Your task to perform on an android device: change notifications settings Image 0: 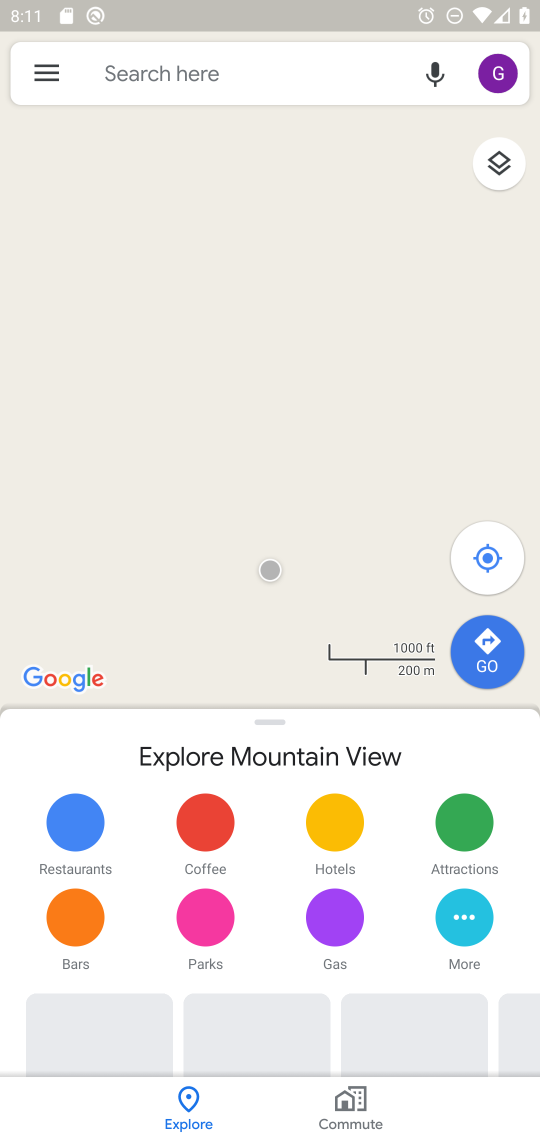
Step 0: press back button
Your task to perform on an android device: change notifications settings Image 1: 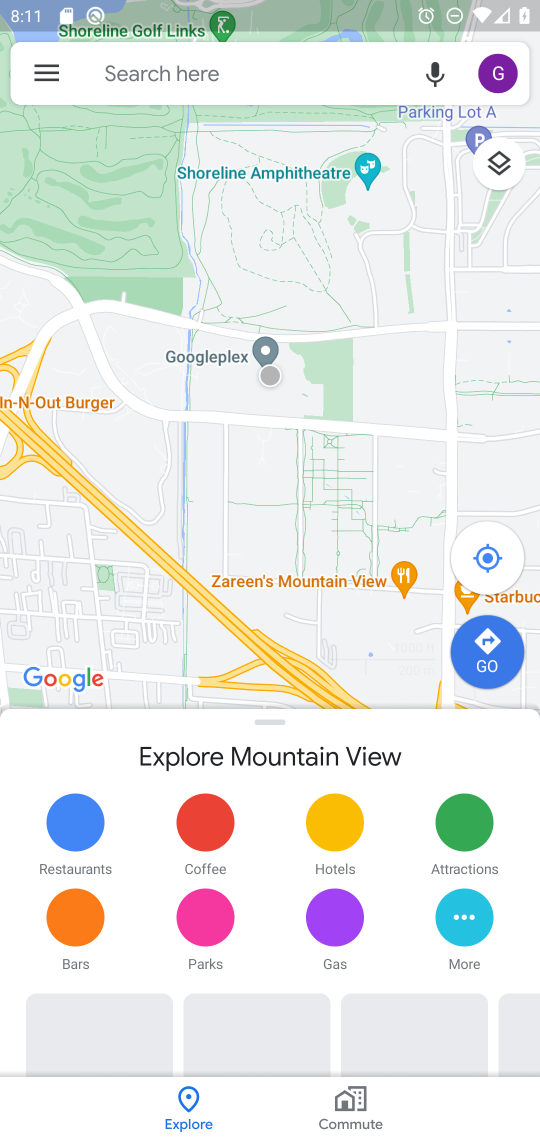
Step 1: press home button
Your task to perform on an android device: change notifications settings Image 2: 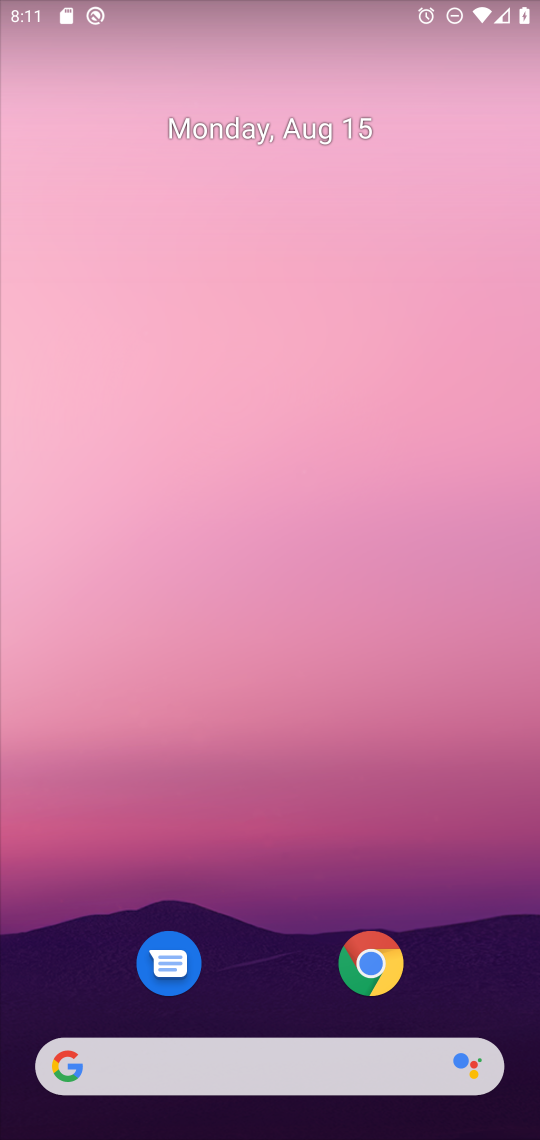
Step 2: drag from (253, 983) to (192, 2)
Your task to perform on an android device: change notifications settings Image 3: 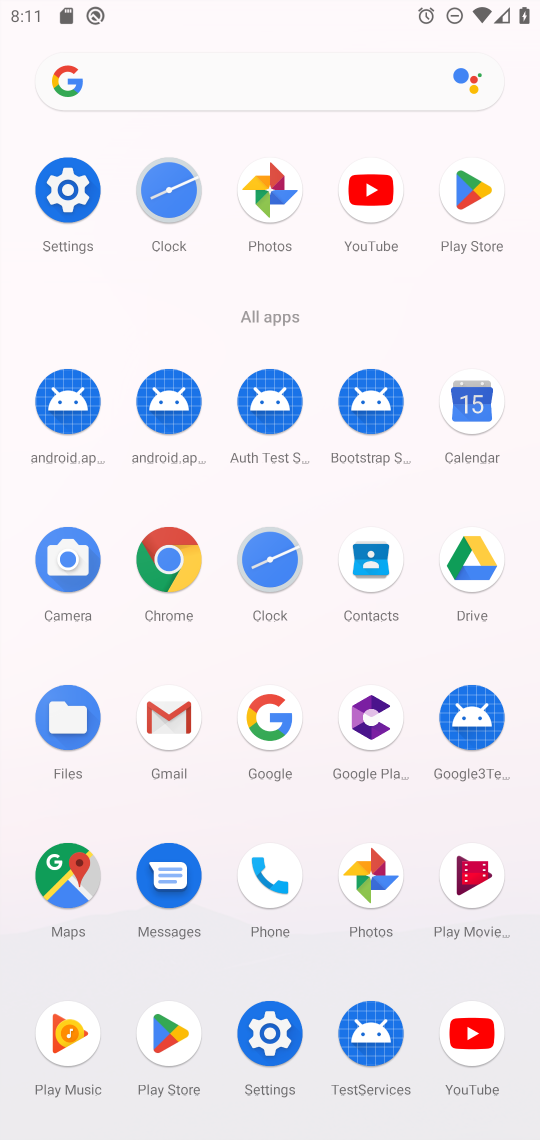
Step 3: click (72, 201)
Your task to perform on an android device: change notifications settings Image 4: 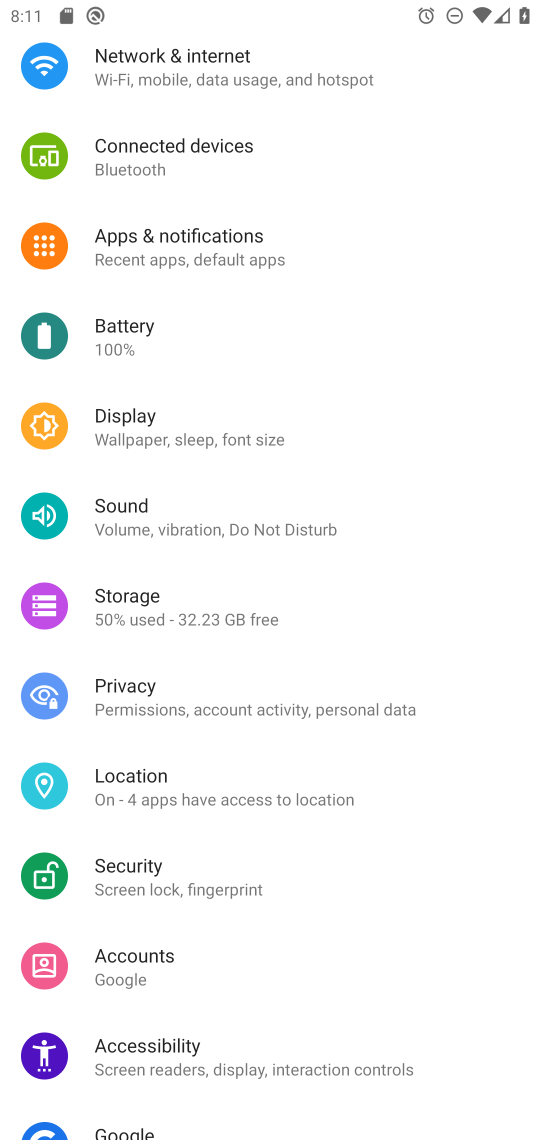
Step 4: click (305, 241)
Your task to perform on an android device: change notifications settings Image 5: 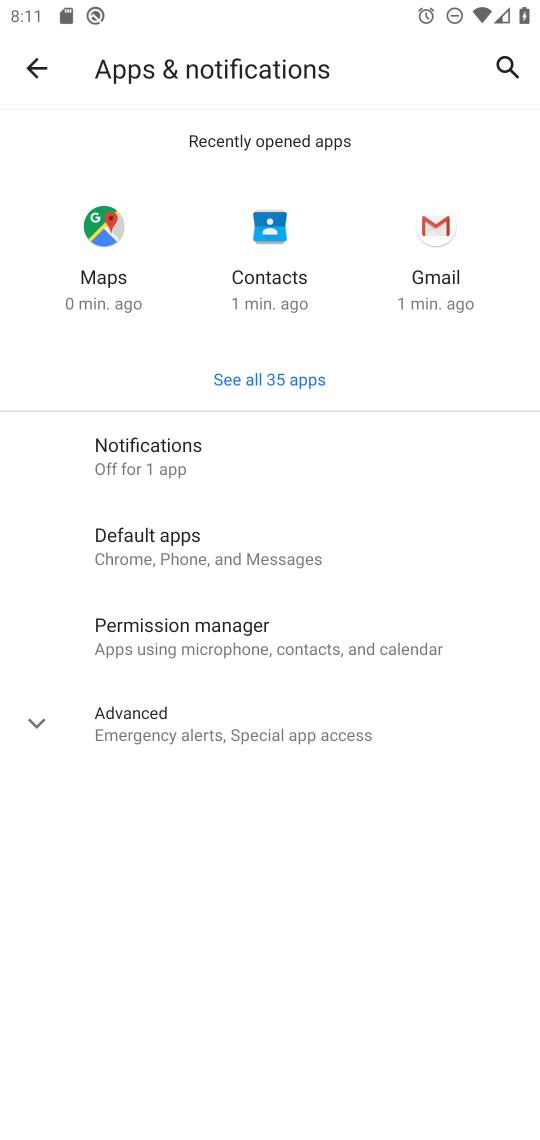
Step 5: click (253, 452)
Your task to perform on an android device: change notifications settings Image 6: 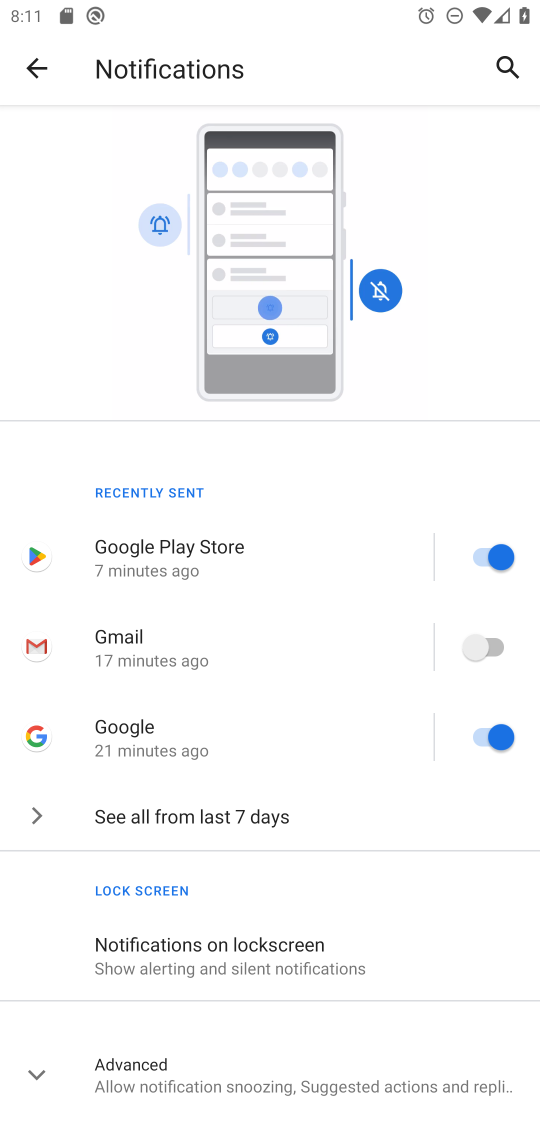
Step 6: click (234, 1072)
Your task to perform on an android device: change notifications settings Image 7: 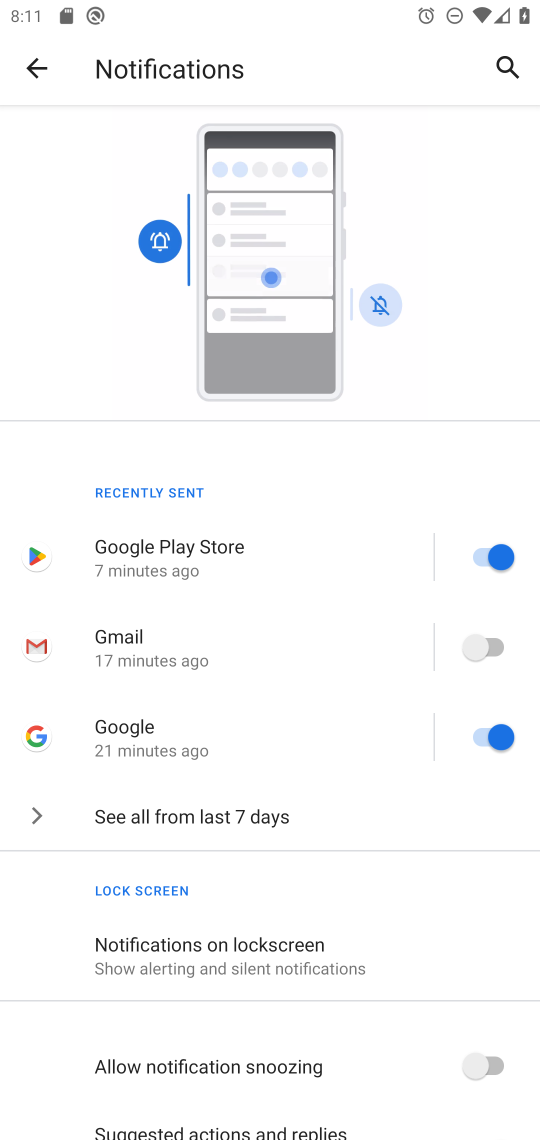
Step 7: click (503, 1061)
Your task to perform on an android device: change notifications settings Image 8: 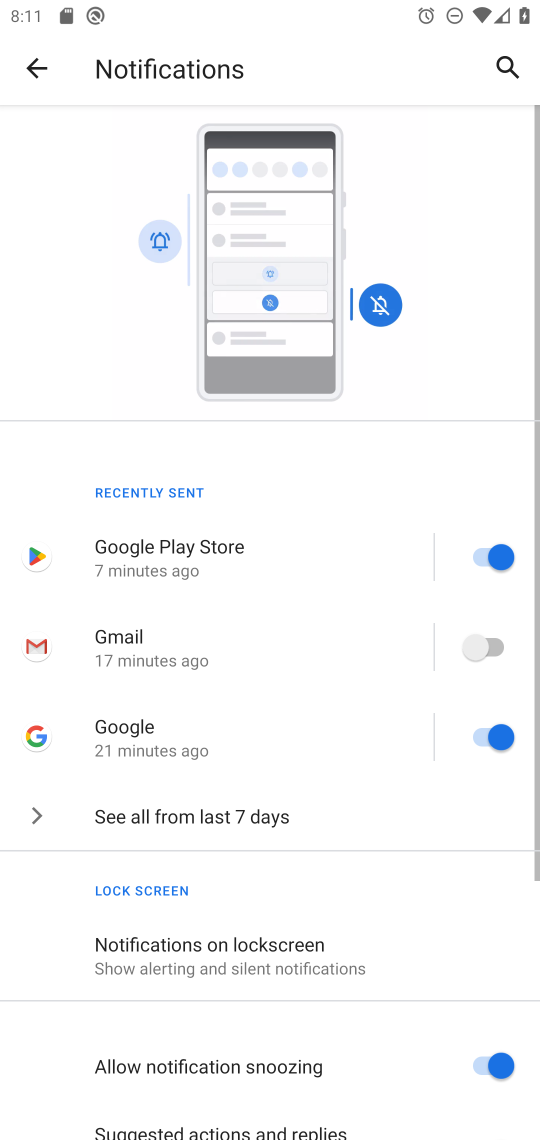
Step 8: drag from (224, 1103) to (267, 445)
Your task to perform on an android device: change notifications settings Image 9: 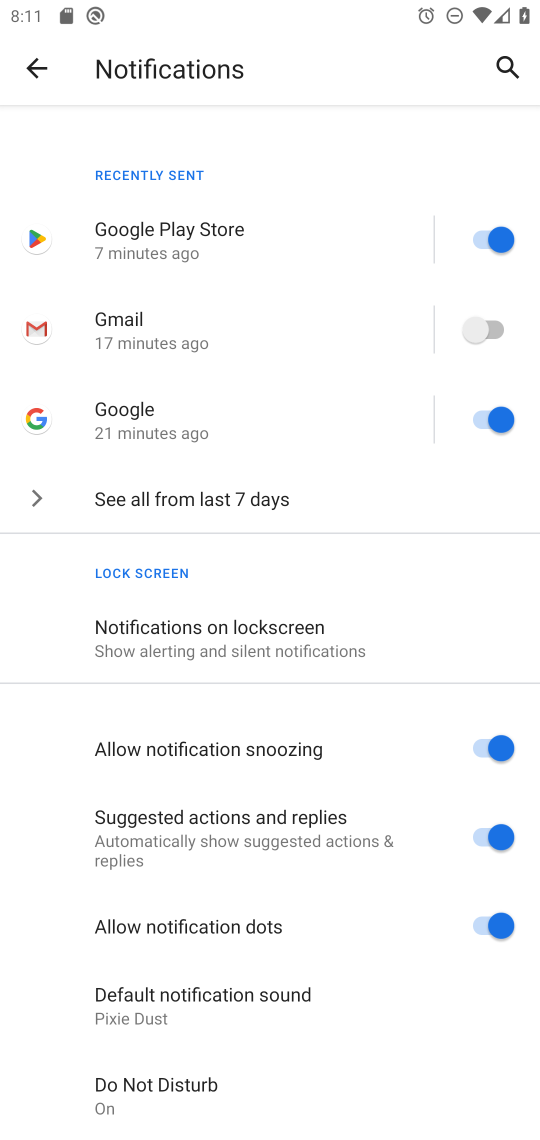
Step 9: click (484, 842)
Your task to perform on an android device: change notifications settings Image 10: 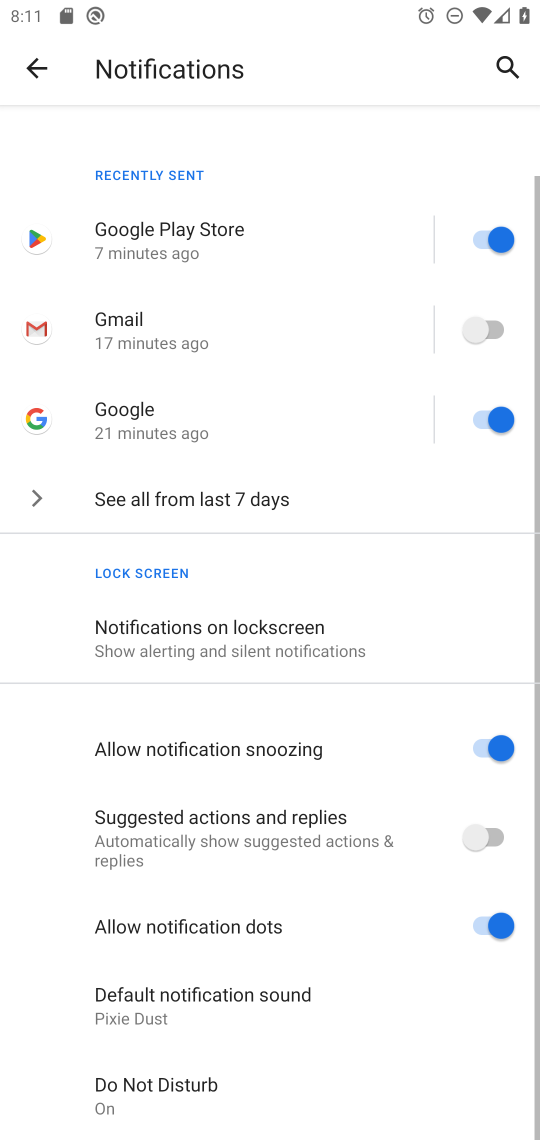
Step 10: click (506, 919)
Your task to perform on an android device: change notifications settings Image 11: 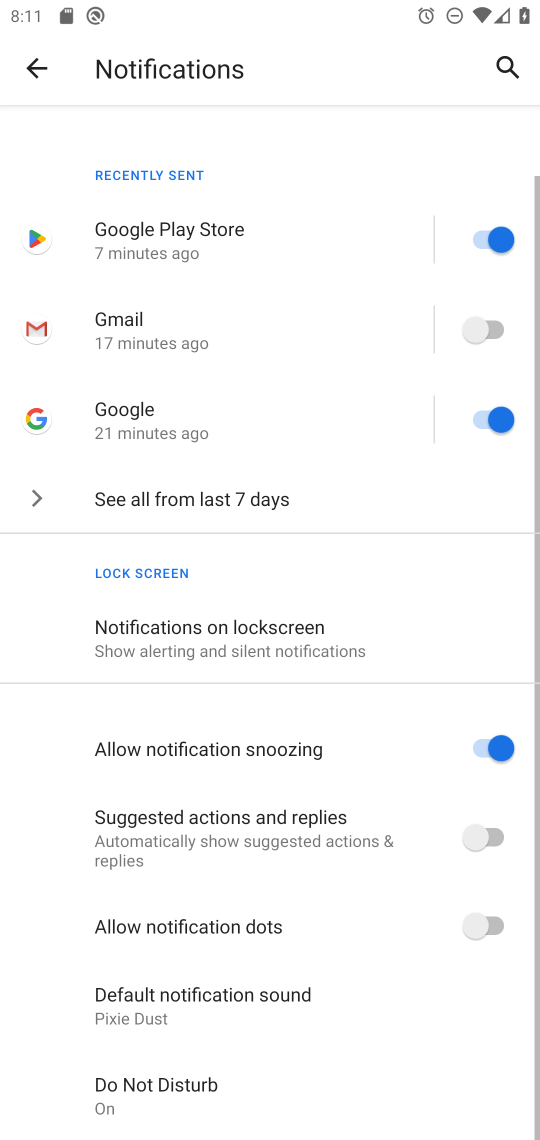
Step 11: task complete